Your task to perform on an android device: turn on priority inbox in the gmail app Image 0: 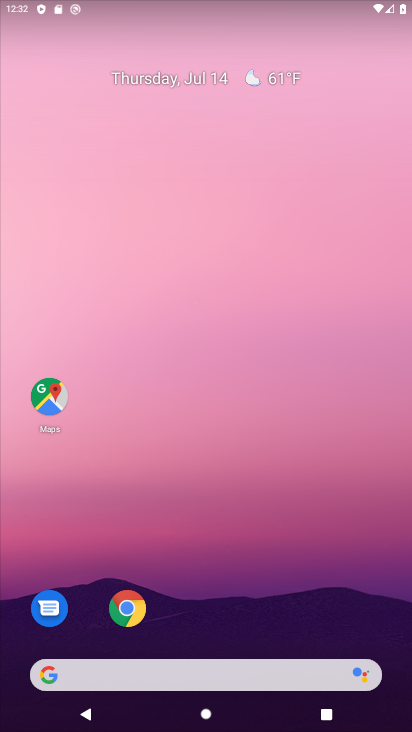
Step 0: drag from (333, 601) to (351, 60)
Your task to perform on an android device: turn on priority inbox in the gmail app Image 1: 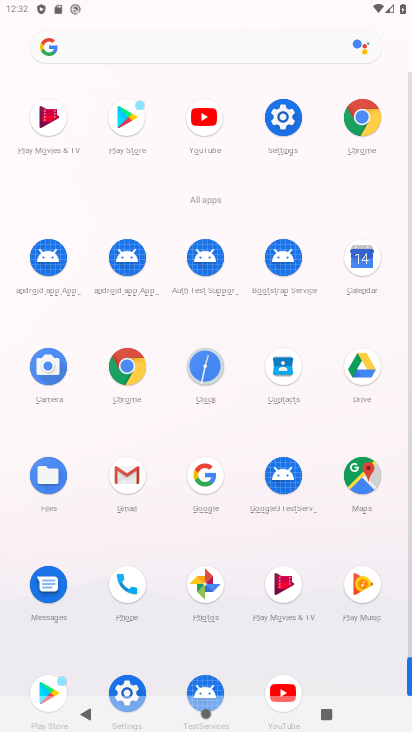
Step 1: click (132, 476)
Your task to perform on an android device: turn on priority inbox in the gmail app Image 2: 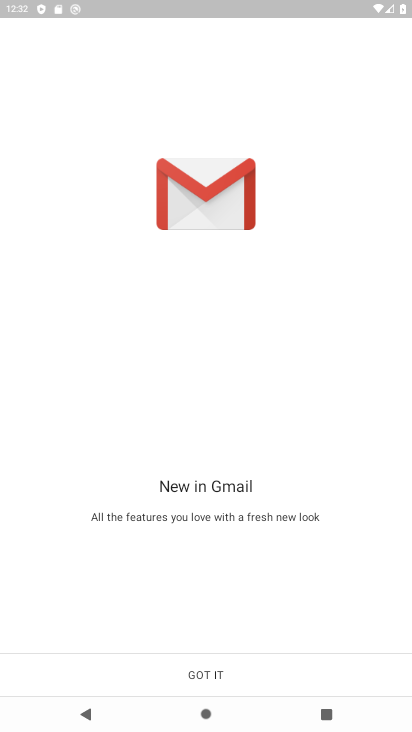
Step 2: click (212, 673)
Your task to perform on an android device: turn on priority inbox in the gmail app Image 3: 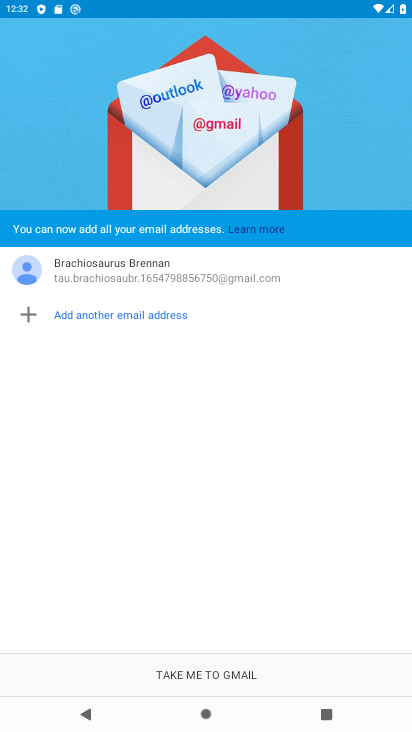
Step 3: click (212, 673)
Your task to perform on an android device: turn on priority inbox in the gmail app Image 4: 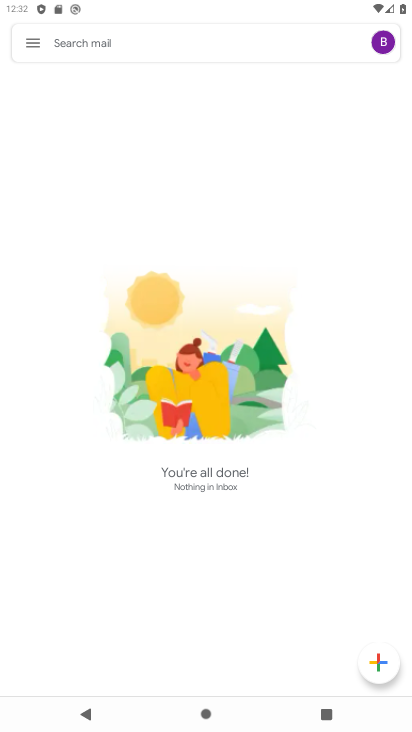
Step 4: click (31, 46)
Your task to perform on an android device: turn on priority inbox in the gmail app Image 5: 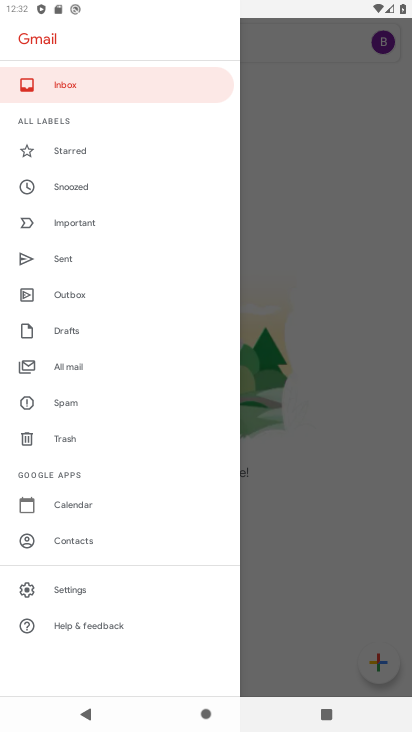
Step 5: drag from (156, 361) to (166, 289)
Your task to perform on an android device: turn on priority inbox in the gmail app Image 6: 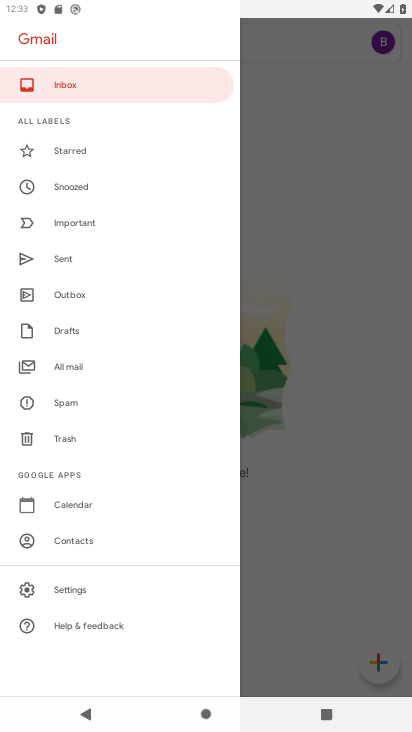
Step 6: click (88, 595)
Your task to perform on an android device: turn on priority inbox in the gmail app Image 7: 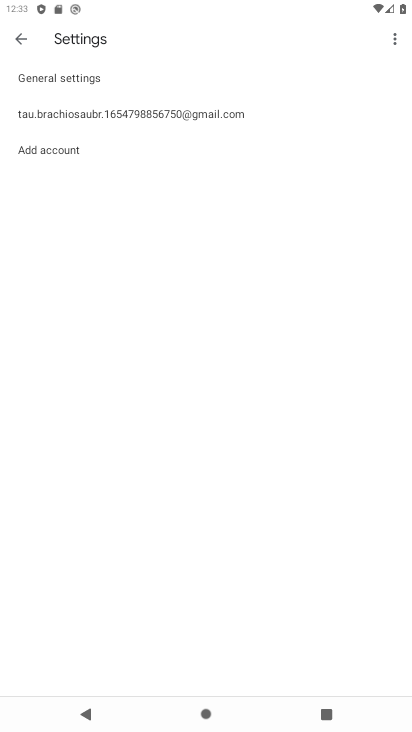
Step 7: click (255, 120)
Your task to perform on an android device: turn on priority inbox in the gmail app Image 8: 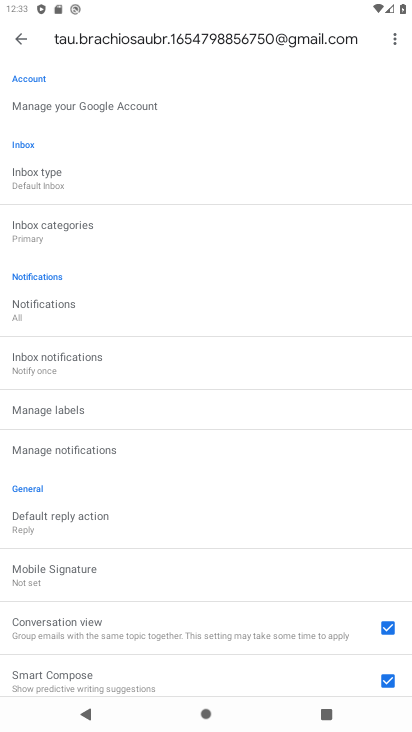
Step 8: drag from (260, 318) to (267, 245)
Your task to perform on an android device: turn on priority inbox in the gmail app Image 9: 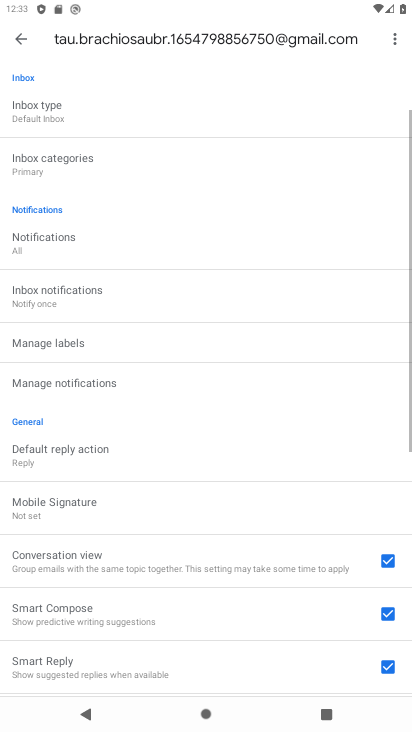
Step 9: drag from (265, 399) to (266, 274)
Your task to perform on an android device: turn on priority inbox in the gmail app Image 10: 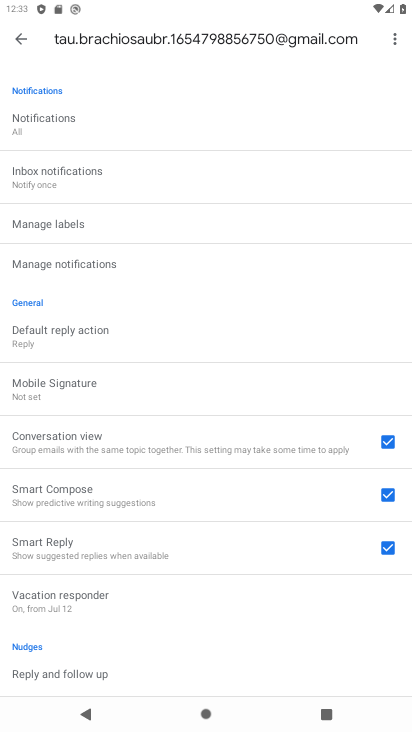
Step 10: drag from (277, 418) to (286, 358)
Your task to perform on an android device: turn on priority inbox in the gmail app Image 11: 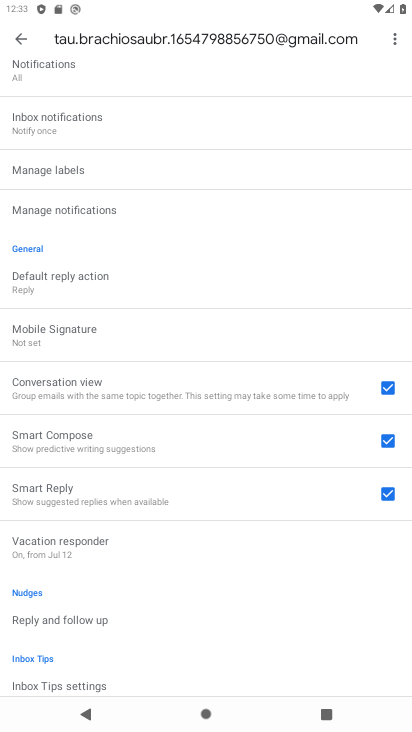
Step 11: drag from (285, 504) to (291, 392)
Your task to perform on an android device: turn on priority inbox in the gmail app Image 12: 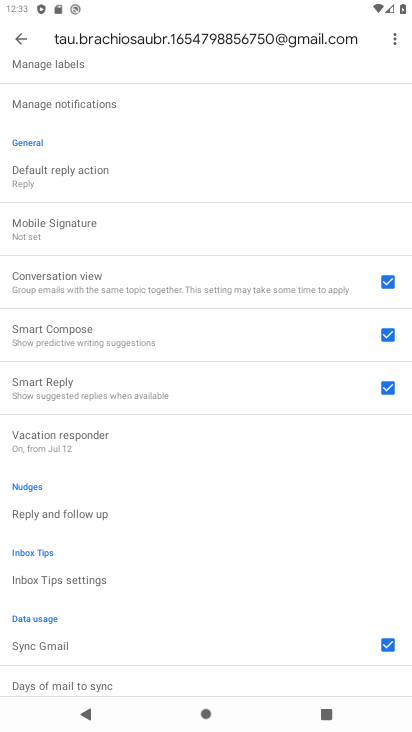
Step 12: drag from (288, 534) to (289, 346)
Your task to perform on an android device: turn on priority inbox in the gmail app Image 13: 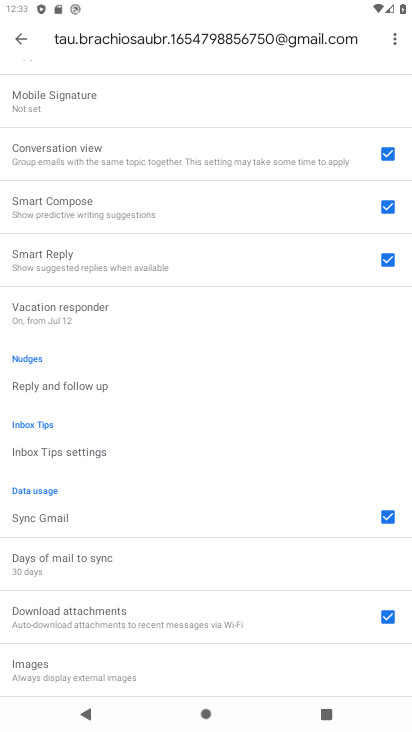
Step 13: drag from (288, 273) to (278, 351)
Your task to perform on an android device: turn on priority inbox in the gmail app Image 14: 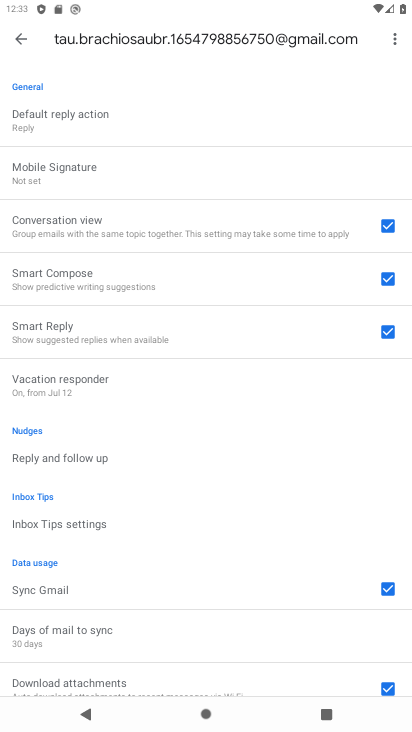
Step 14: drag from (277, 280) to (276, 363)
Your task to perform on an android device: turn on priority inbox in the gmail app Image 15: 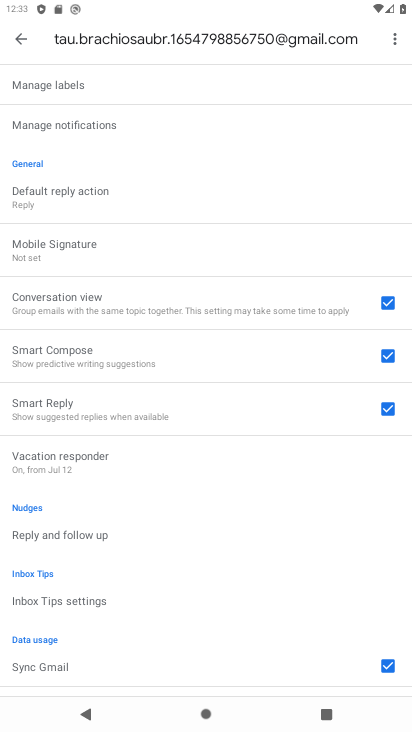
Step 15: drag from (273, 247) to (272, 337)
Your task to perform on an android device: turn on priority inbox in the gmail app Image 16: 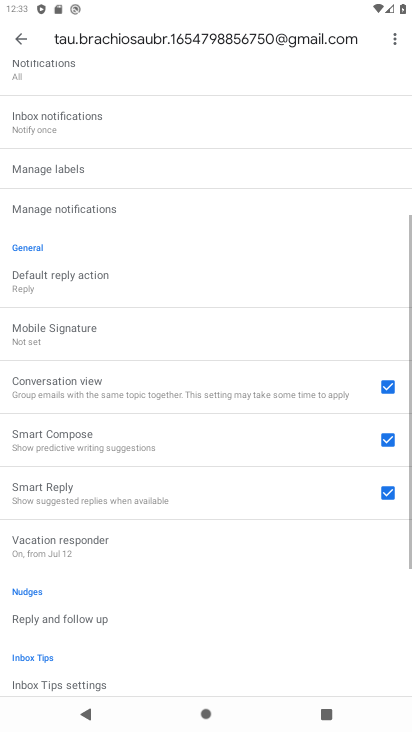
Step 16: drag from (271, 240) to (269, 334)
Your task to perform on an android device: turn on priority inbox in the gmail app Image 17: 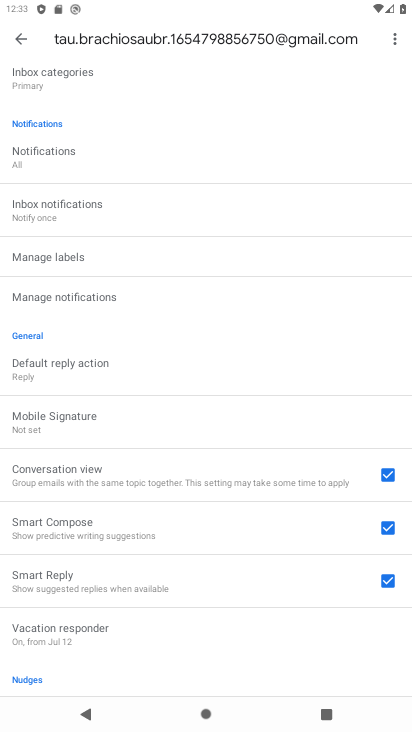
Step 17: drag from (260, 218) to (262, 340)
Your task to perform on an android device: turn on priority inbox in the gmail app Image 18: 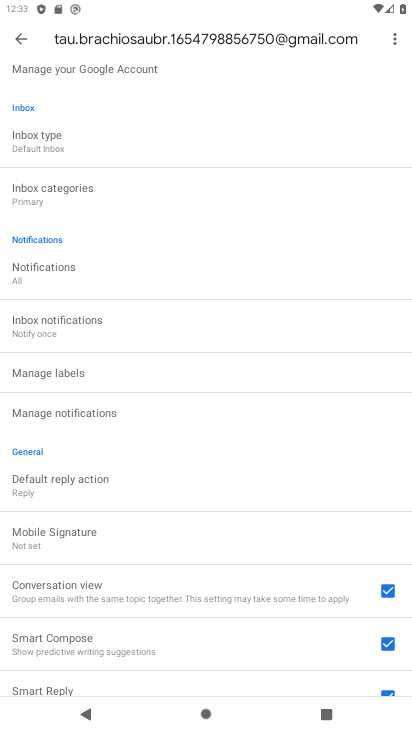
Step 18: drag from (256, 225) to (258, 372)
Your task to perform on an android device: turn on priority inbox in the gmail app Image 19: 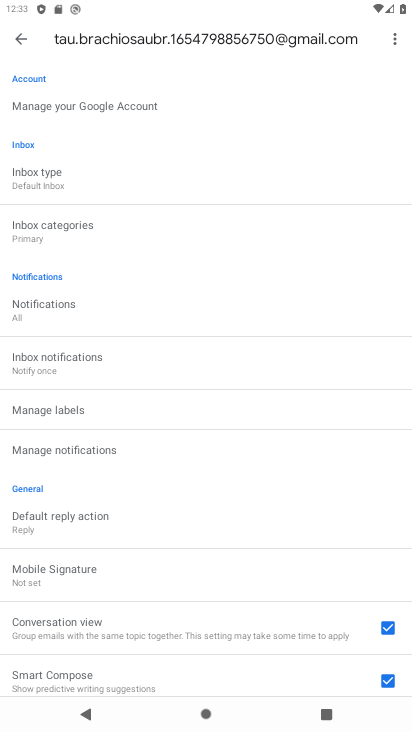
Step 19: click (90, 182)
Your task to perform on an android device: turn on priority inbox in the gmail app Image 20: 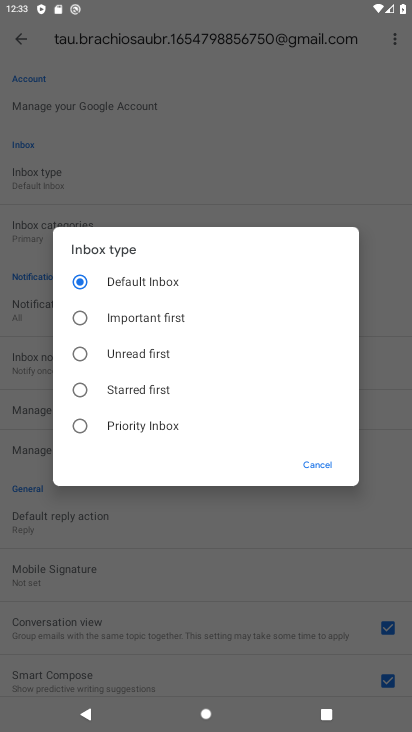
Step 20: click (151, 424)
Your task to perform on an android device: turn on priority inbox in the gmail app Image 21: 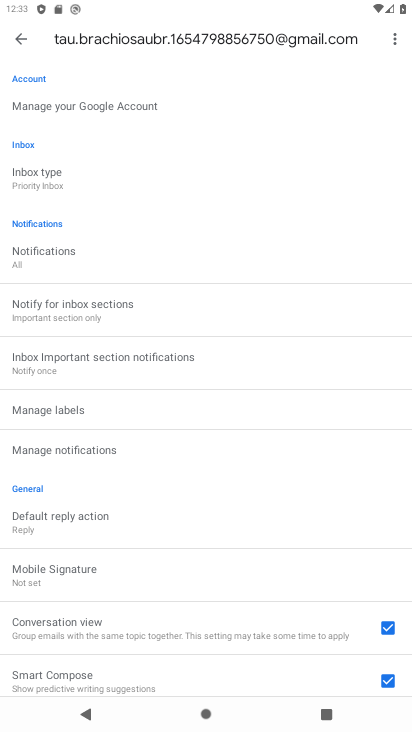
Step 21: task complete